Your task to perform on an android device: check data usage Image 0: 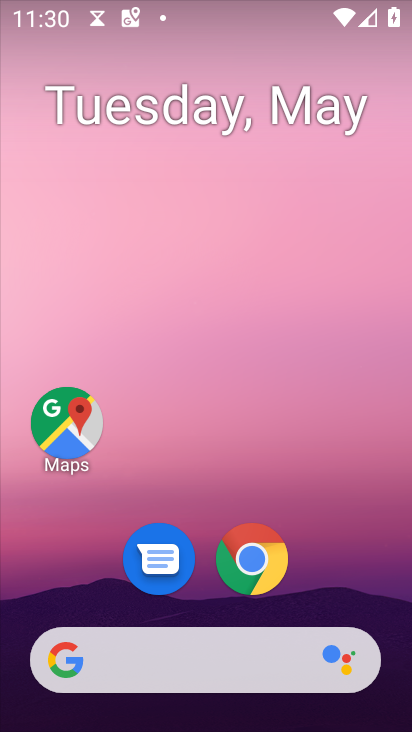
Step 0: drag from (376, 548) to (271, 0)
Your task to perform on an android device: check data usage Image 1: 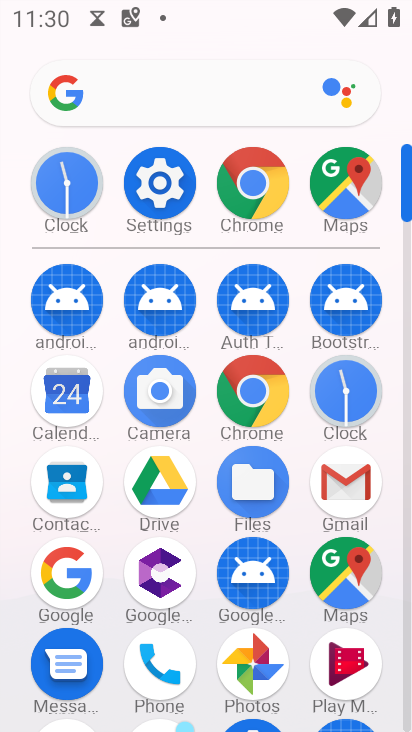
Step 1: click (187, 217)
Your task to perform on an android device: check data usage Image 2: 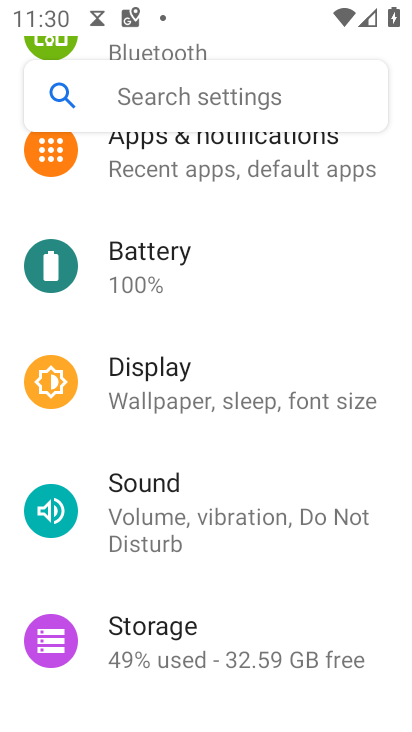
Step 2: drag from (193, 214) to (235, 666)
Your task to perform on an android device: check data usage Image 3: 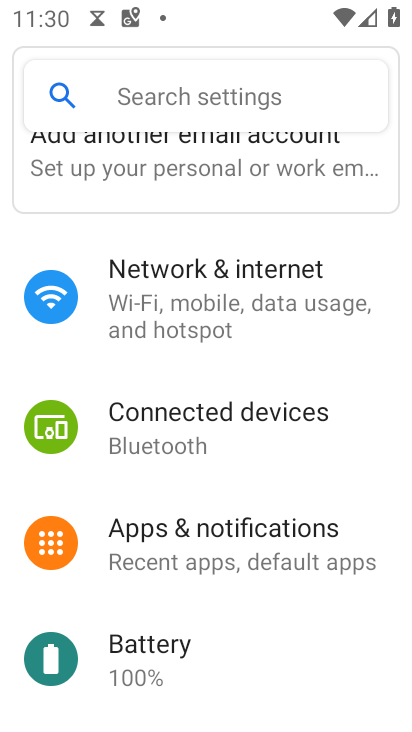
Step 3: click (214, 323)
Your task to perform on an android device: check data usage Image 4: 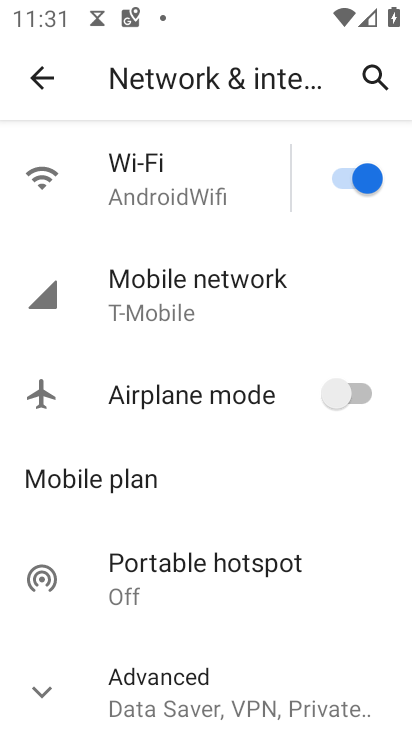
Step 4: click (191, 307)
Your task to perform on an android device: check data usage Image 5: 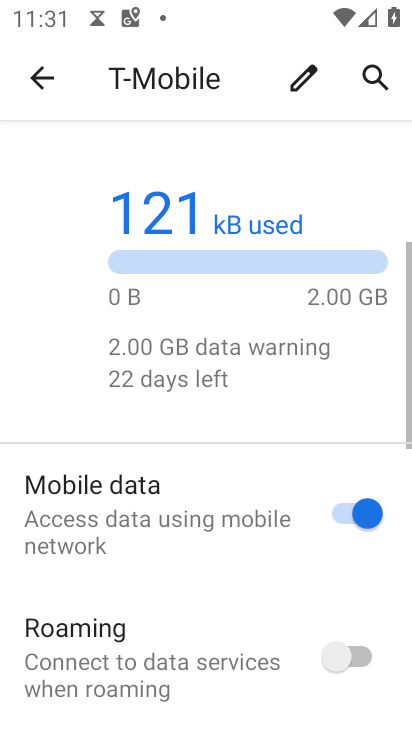
Step 5: task complete